Your task to perform on an android device: turn off translation in the chrome app Image 0: 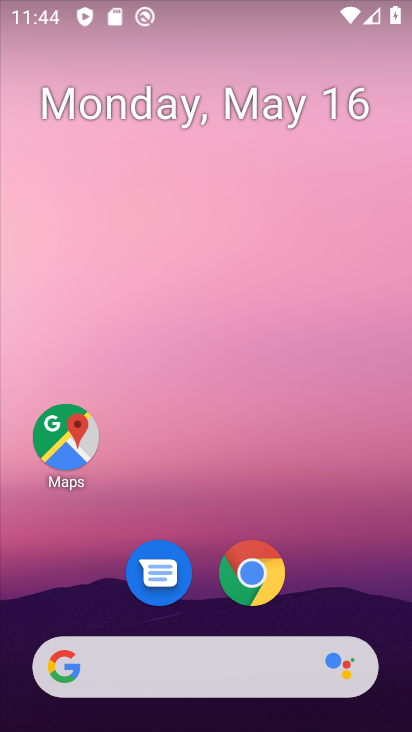
Step 0: click (250, 591)
Your task to perform on an android device: turn off translation in the chrome app Image 1: 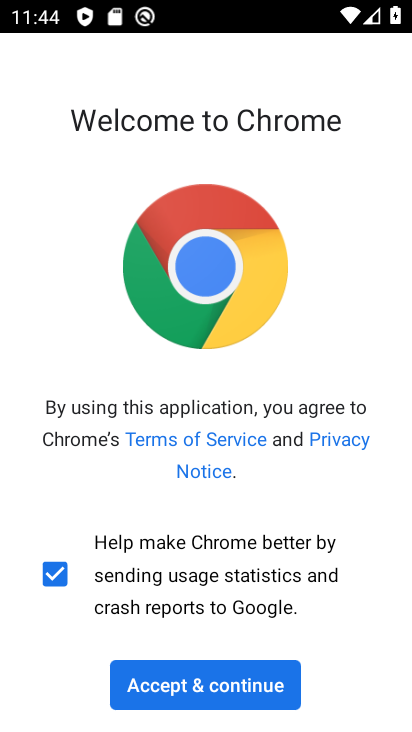
Step 1: click (211, 695)
Your task to perform on an android device: turn off translation in the chrome app Image 2: 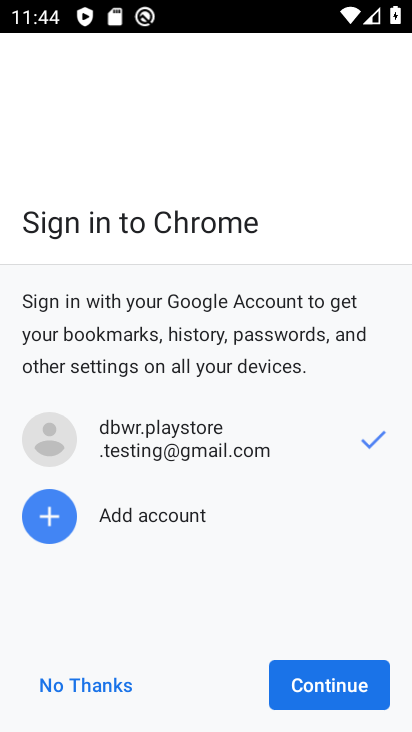
Step 2: click (293, 698)
Your task to perform on an android device: turn off translation in the chrome app Image 3: 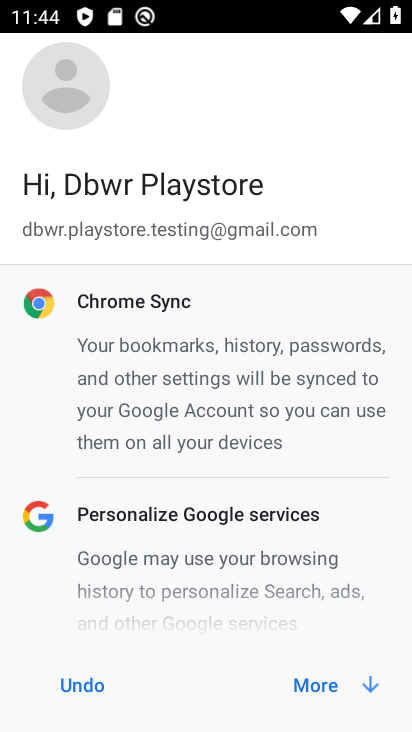
Step 3: click (293, 698)
Your task to perform on an android device: turn off translation in the chrome app Image 4: 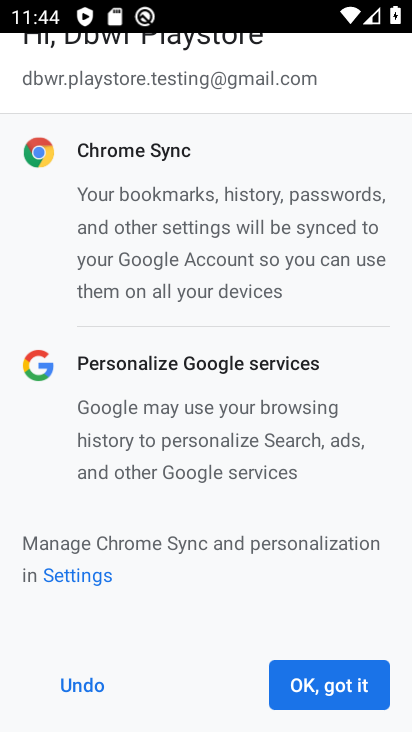
Step 4: click (299, 693)
Your task to perform on an android device: turn off translation in the chrome app Image 5: 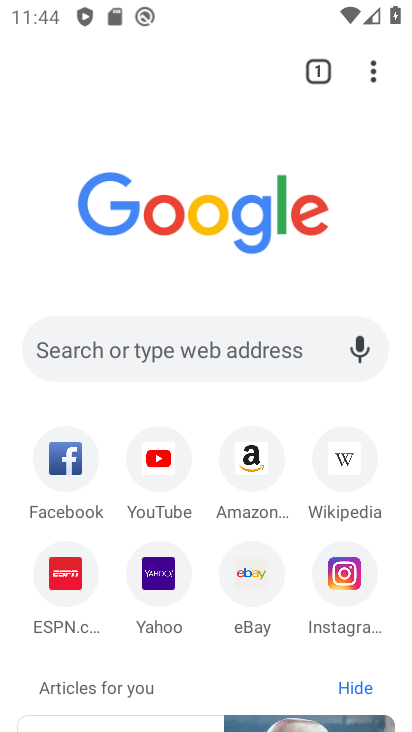
Step 5: click (378, 68)
Your task to perform on an android device: turn off translation in the chrome app Image 6: 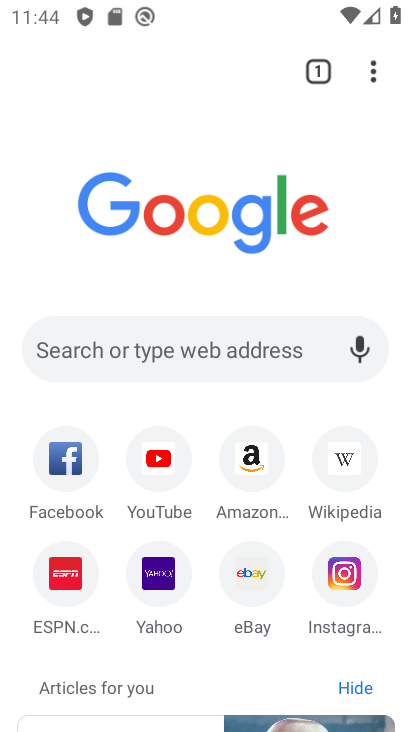
Step 6: drag from (385, 66) to (117, 595)
Your task to perform on an android device: turn off translation in the chrome app Image 7: 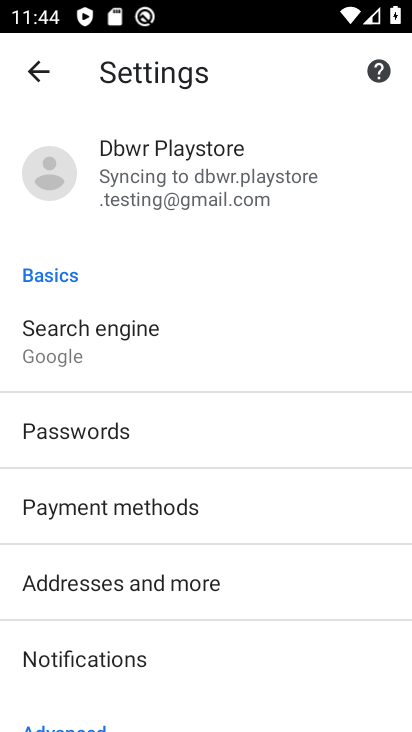
Step 7: drag from (130, 581) to (178, 203)
Your task to perform on an android device: turn off translation in the chrome app Image 8: 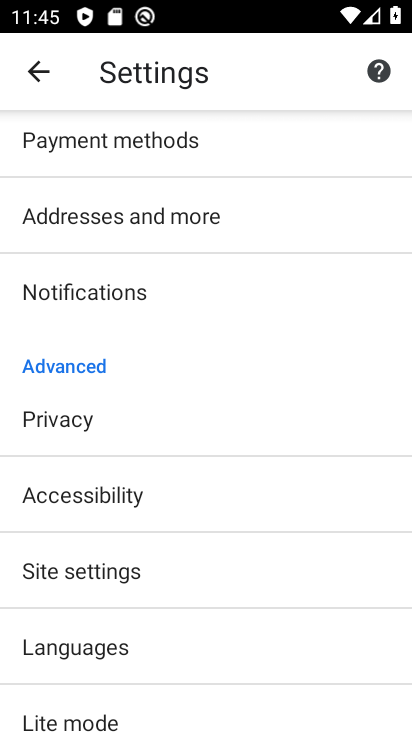
Step 8: click (109, 643)
Your task to perform on an android device: turn off translation in the chrome app Image 9: 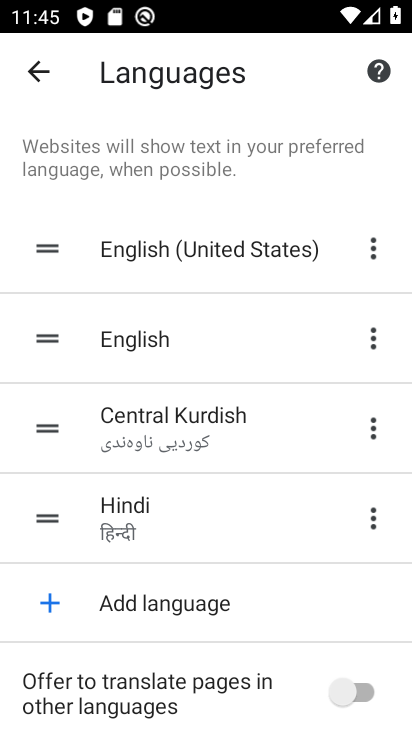
Step 9: task complete